Your task to perform on an android device: Open Wikipedia Image 0: 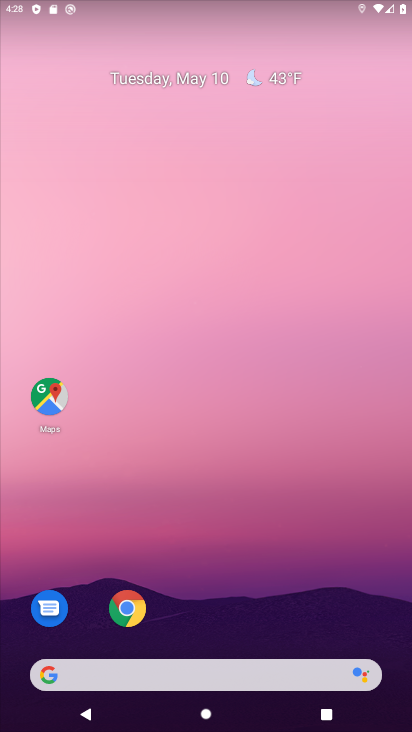
Step 0: click (130, 604)
Your task to perform on an android device: Open Wikipedia Image 1: 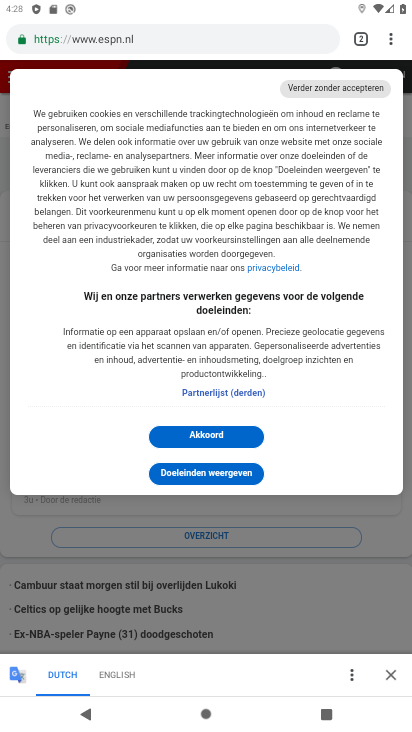
Step 1: click (361, 38)
Your task to perform on an android device: Open Wikipedia Image 2: 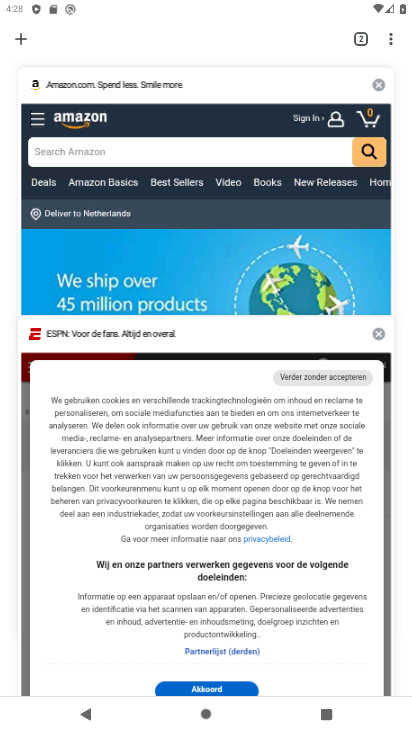
Step 2: click (20, 34)
Your task to perform on an android device: Open Wikipedia Image 3: 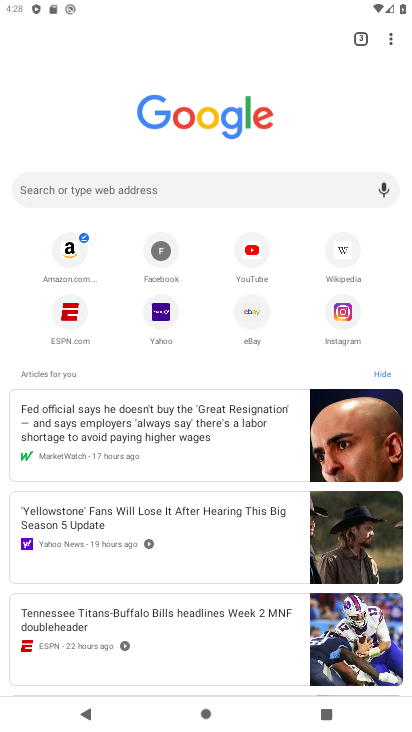
Step 3: click (340, 257)
Your task to perform on an android device: Open Wikipedia Image 4: 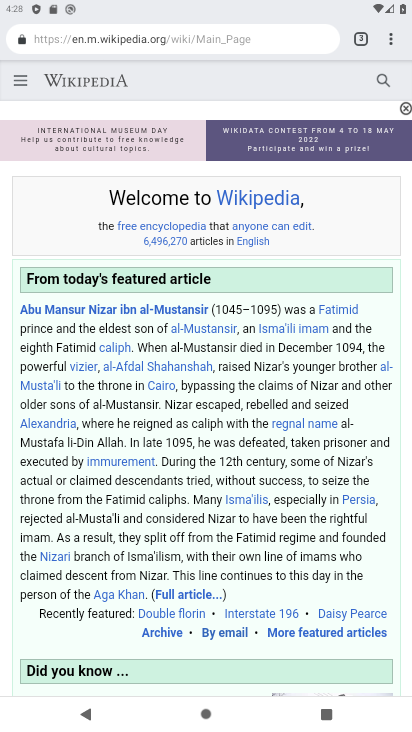
Step 4: task complete